Your task to perform on an android device: set the stopwatch Image 0: 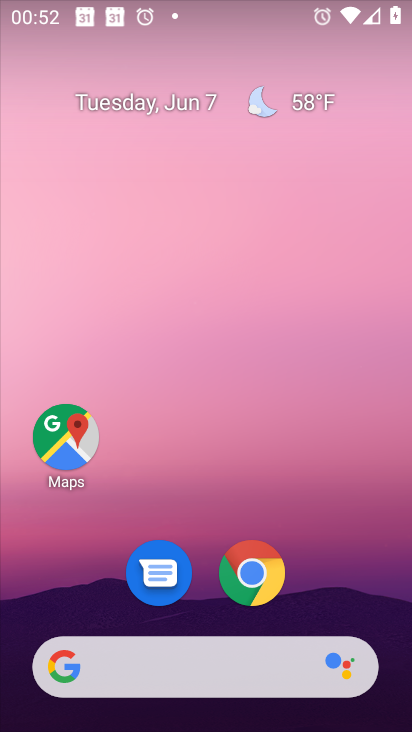
Step 0: press home button
Your task to perform on an android device: set the stopwatch Image 1: 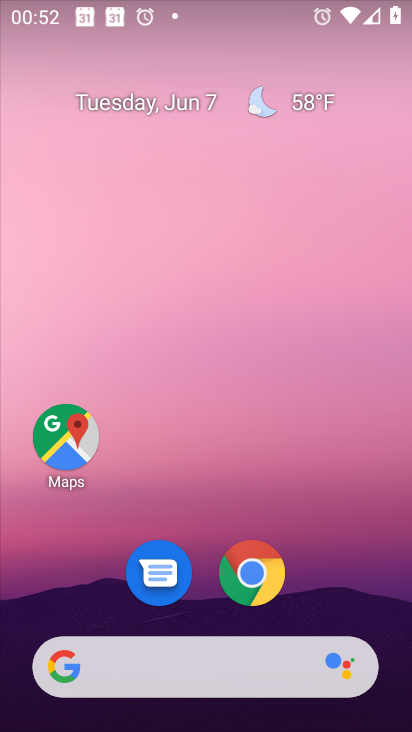
Step 1: drag from (372, 600) to (283, 76)
Your task to perform on an android device: set the stopwatch Image 2: 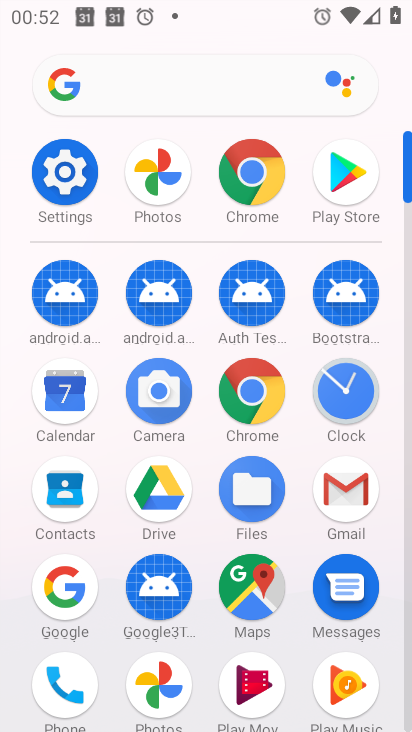
Step 2: click (349, 391)
Your task to perform on an android device: set the stopwatch Image 3: 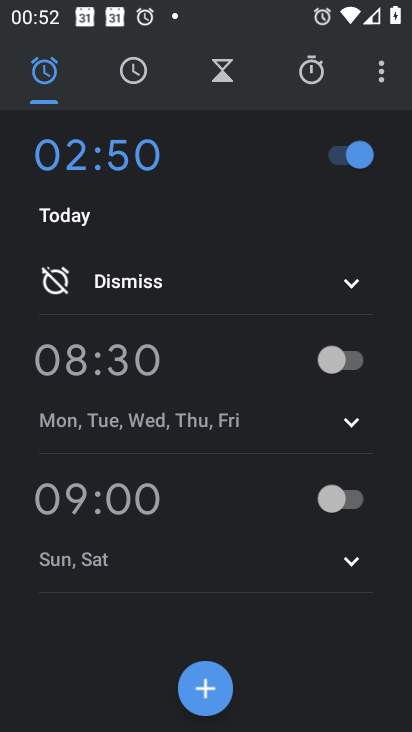
Step 3: click (306, 73)
Your task to perform on an android device: set the stopwatch Image 4: 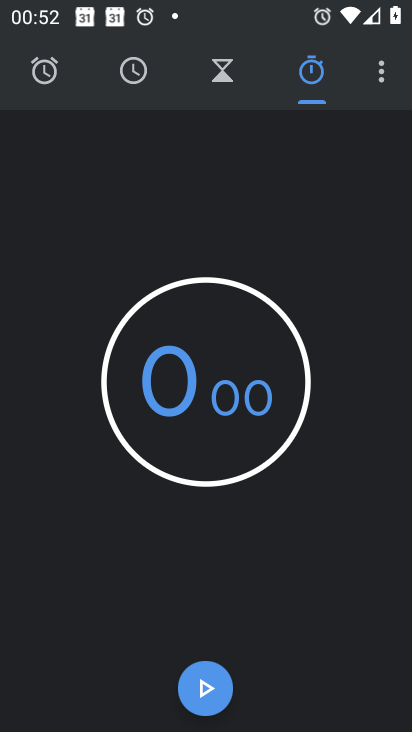
Step 4: click (201, 662)
Your task to perform on an android device: set the stopwatch Image 5: 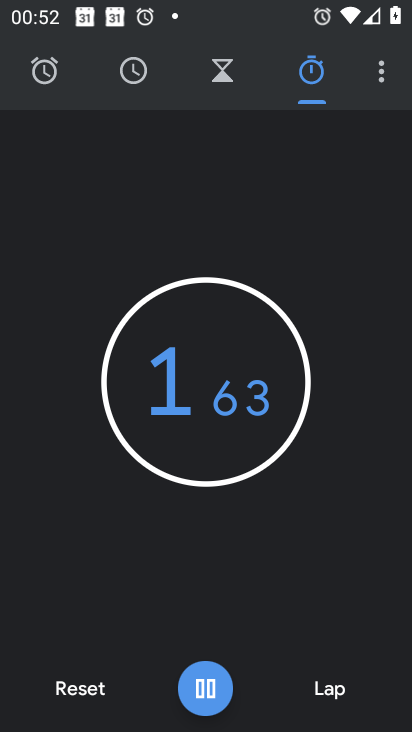
Step 5: task complete